Your task to perform on an android device: Go to Reddit.com Image 0: 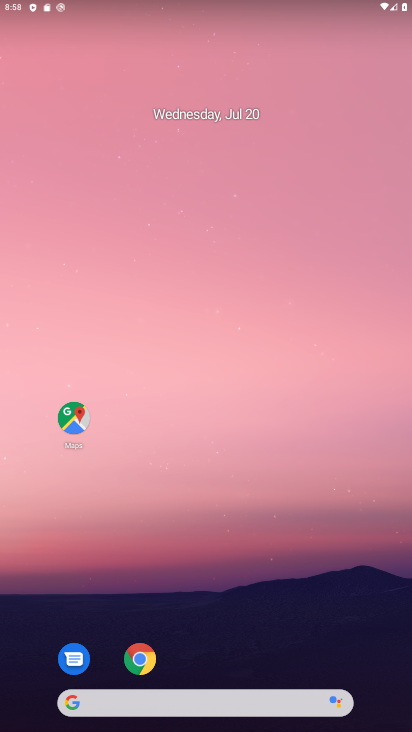
Step 0: click (146, 662)
Your task to perform on an android device: Go to Reddit.com Image 1: 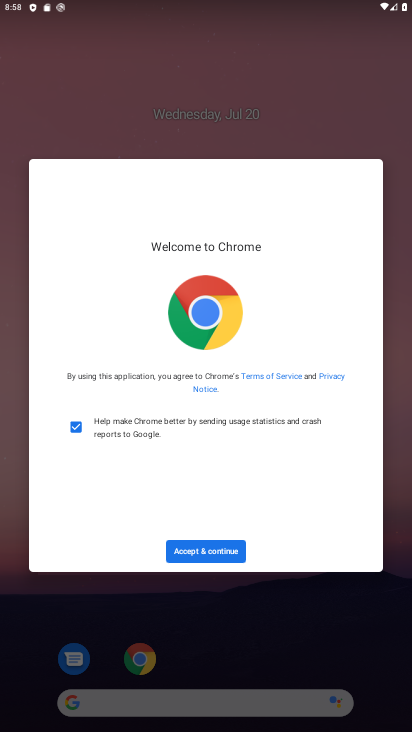
Step 1: click (217, 539)
Your task to perform on an android device: Go to Reddit.com Image 2: 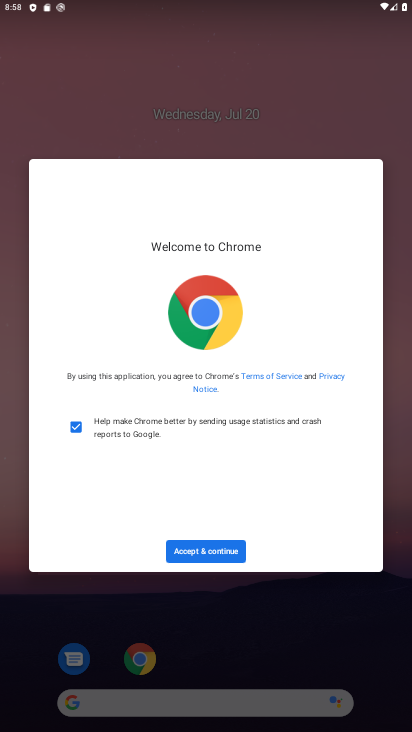
Step 2: click (210, 546)
Your task to perform on an android device: Go to Reddit.com Image 3: 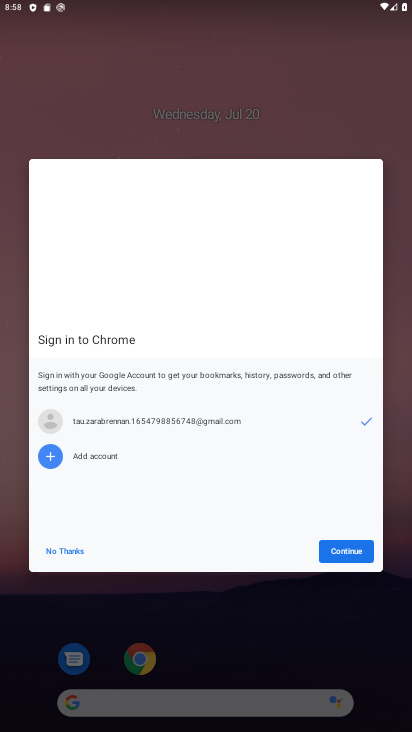
Step 3: click (340, 541)
Your task to perform on an android device: Go to Reddit.com Image 4: 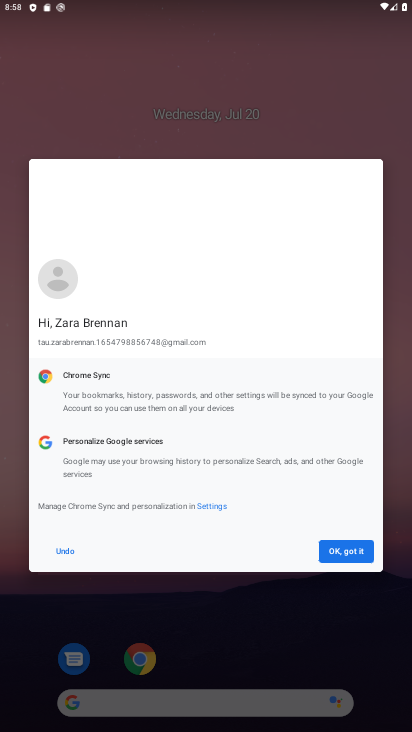
Step 4: click (366, 549)
Your task to perform on an android device: Go to Reddit.com Image 5: 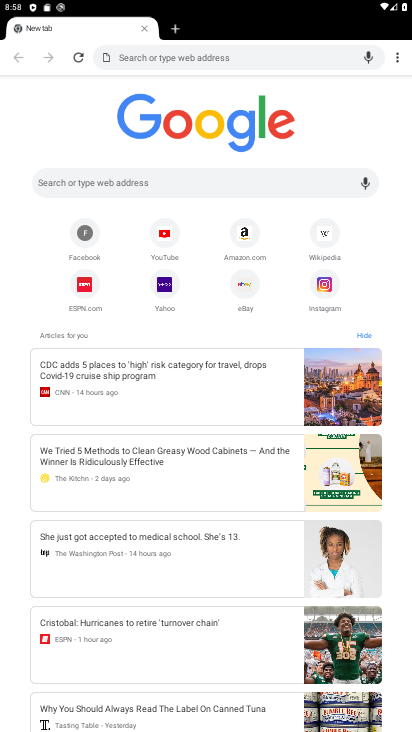
Step 5: type "reddit"
Your task to perform on an android device: Go to Reddit.com Image 6: 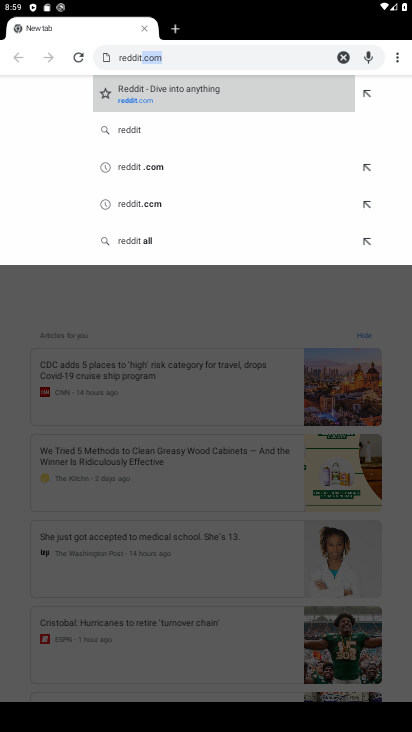
Step 6: click (120, 104)
Your task to perform on an android device: Go to Reddit.com Image 7: 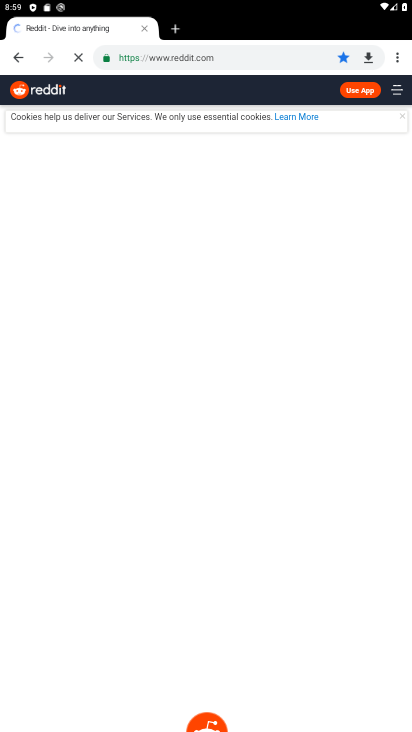
Step 7: task complete